Your task to perform on an android device: find snoozed emails in the gmail app Image 0: 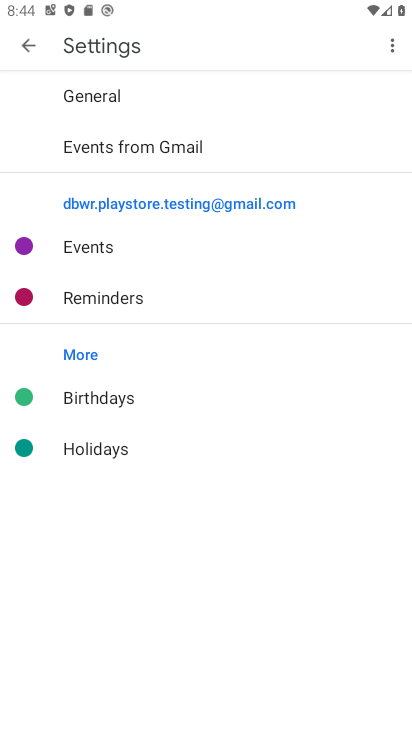
Step 0: press back button
Your task to perform on an android device: find snoozed emails in the gmail app Image 1: 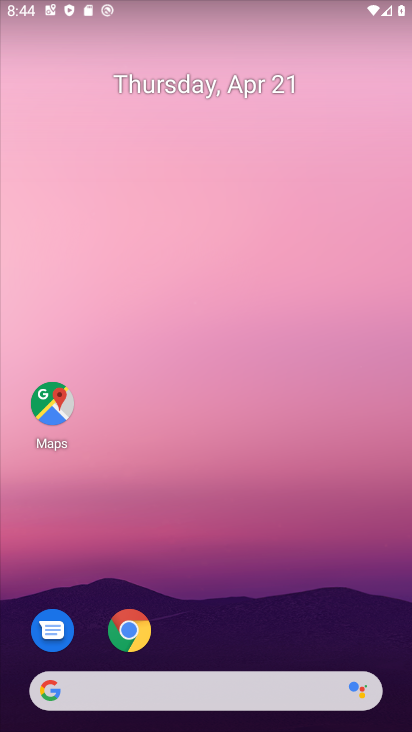
Step 1: drag from (163, 658) to (268, 140)
Your task to perform on an android device: find snoozed emails in the gmail app Image 2: 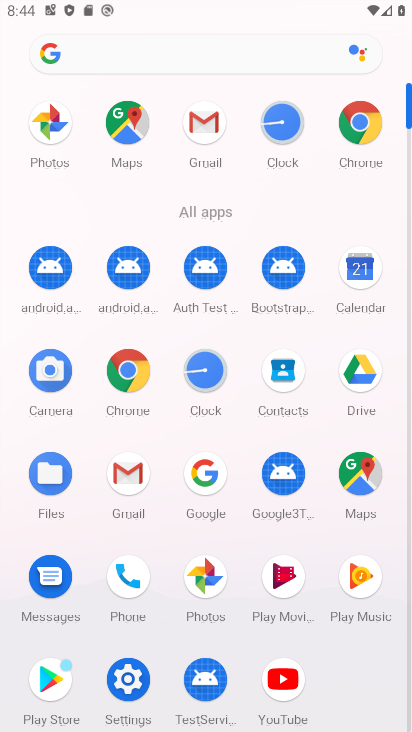
Step 2: click (123, 489)
Your task to perform on an android device: find snoozed emails in the gmail app Image 3: 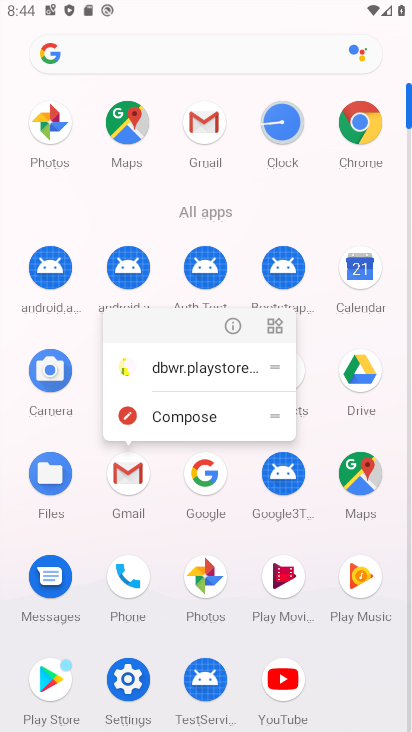
Step 3: click (129, 472)
Your task to perform on an android device: find snoozed emails in the gmail app Image 4: 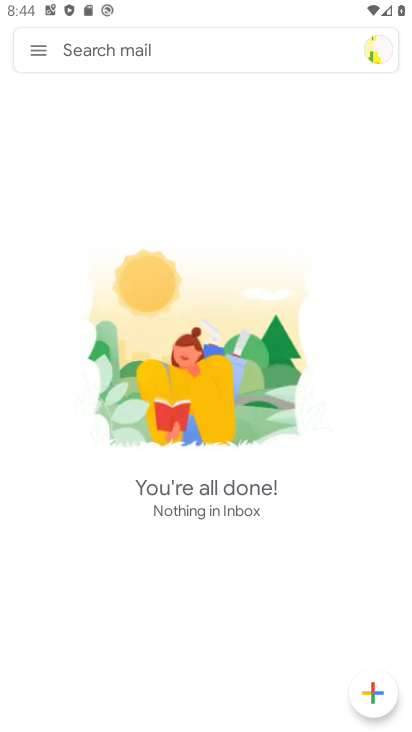
Step 4: click (45, 48)
Your task to perform on an android device: find snoozed emails in the gmail app Image 5: 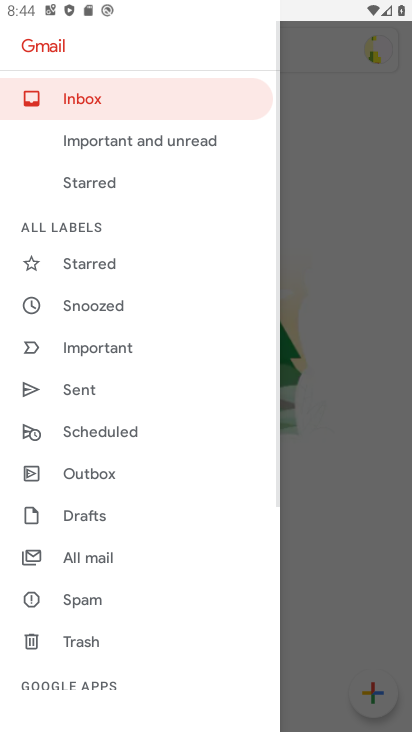
Step 5: click (130, 309)
Your task to perform on an android device: find snoozed emails in the gmail app Image 6: 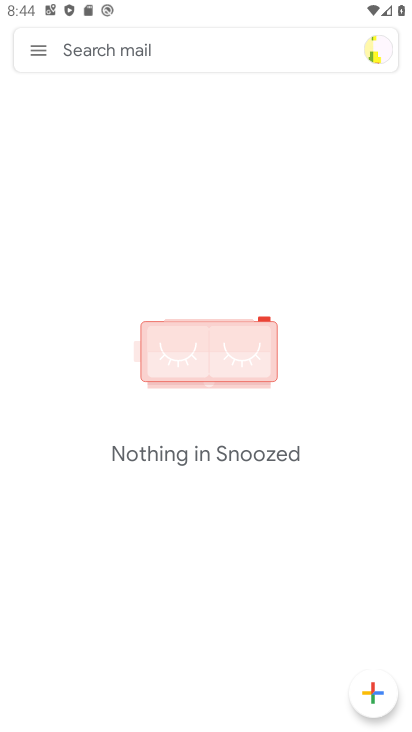
Step 6: task complete